Your task to perform on an android device: turn off location Image 0: 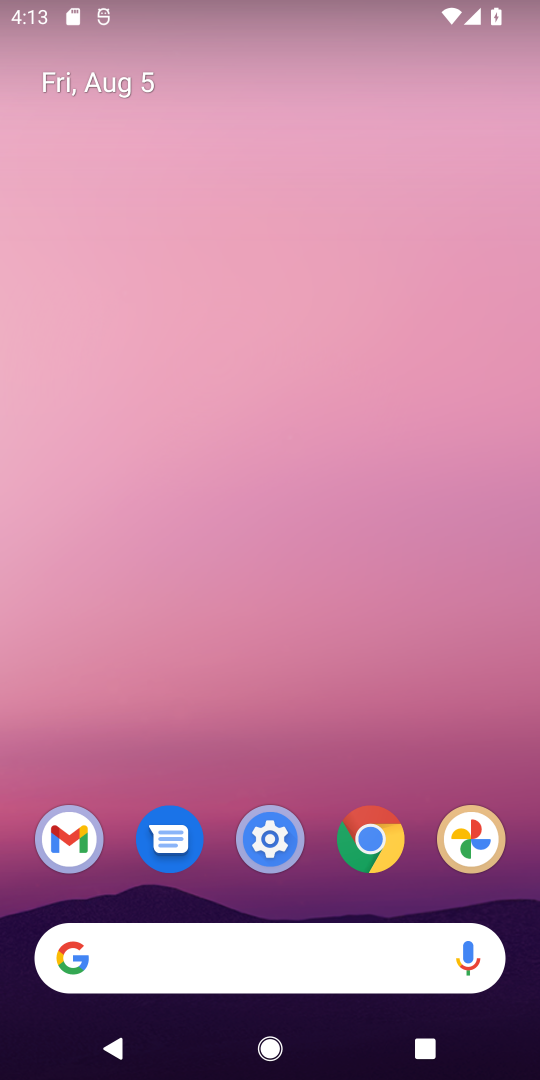
Step 0: click (265, 816)
Your task to perform on an android device: turn off location Image 1: 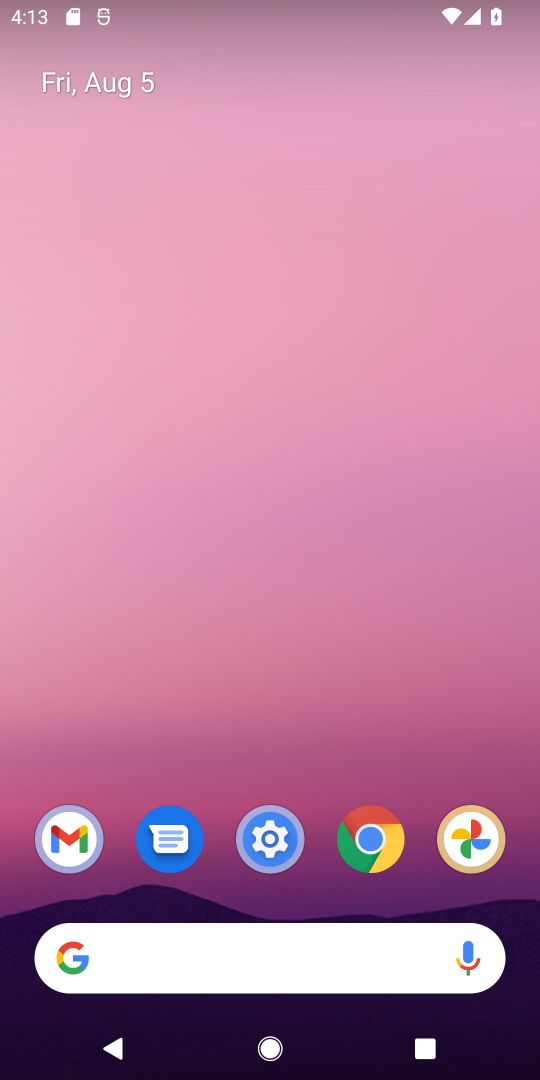
Step 1: click (275, 836)
Your task to perform on an android device: turn off location Image 2: 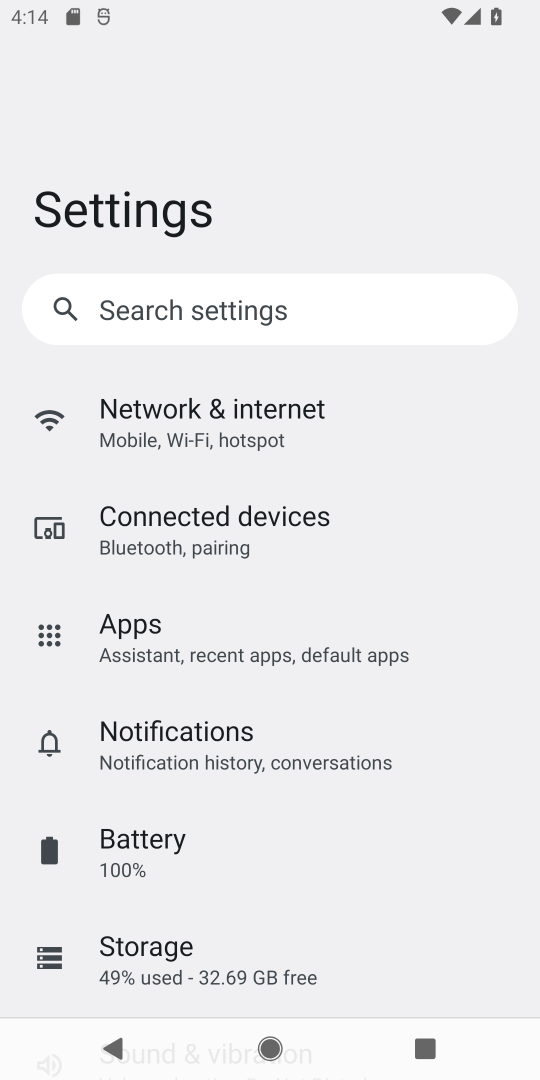
Step 2: drag from (286, 885) to (285, 320)
Your task to perform on an android device: turn off location Image 3: 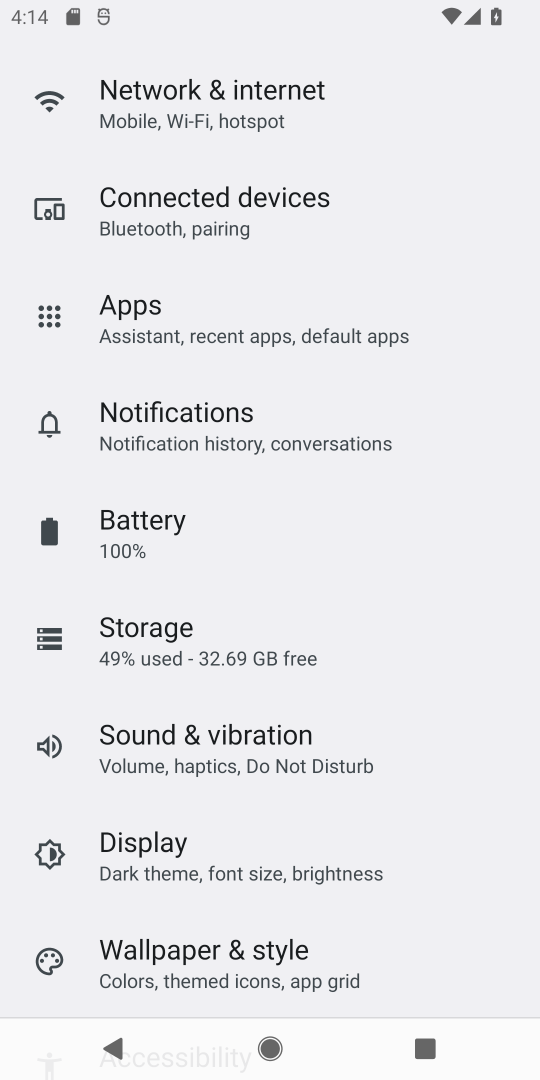
Step 3: drag from (235, 911) to (260, 417)
Your task to perform on an android device: turn off location Image 4: 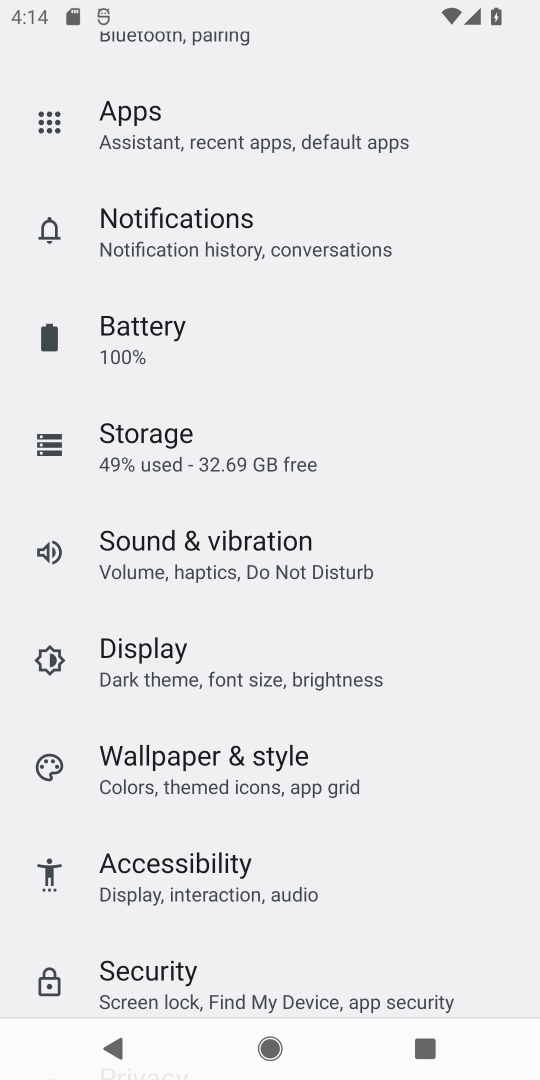
Step 4: drag from (250, 814) to (315, 279)
Your task to perform on an android device: turn off location Image 5: 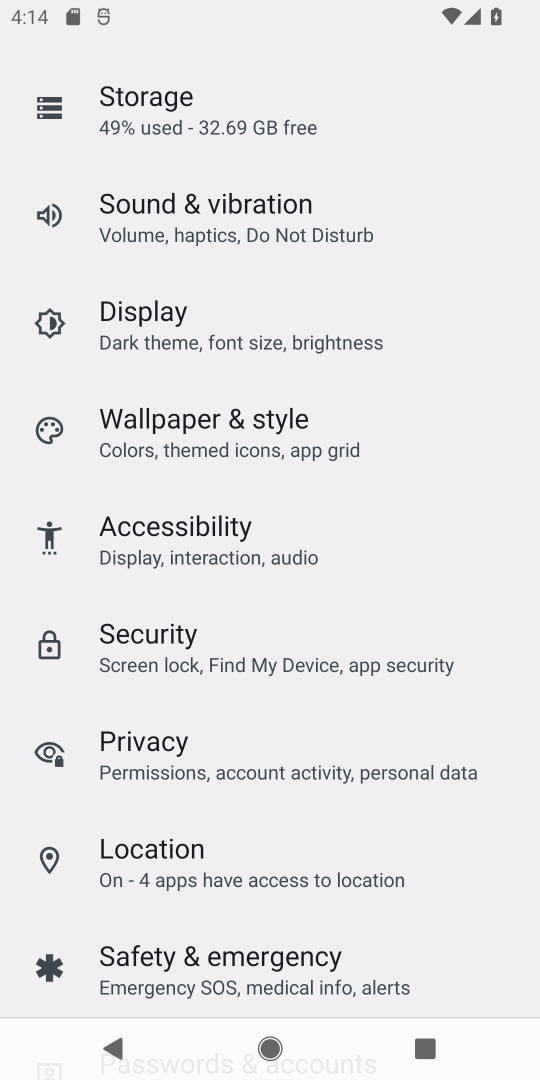
Step 5: click (207, 849)
Your task to perform on an android device: turn off location Image 6: 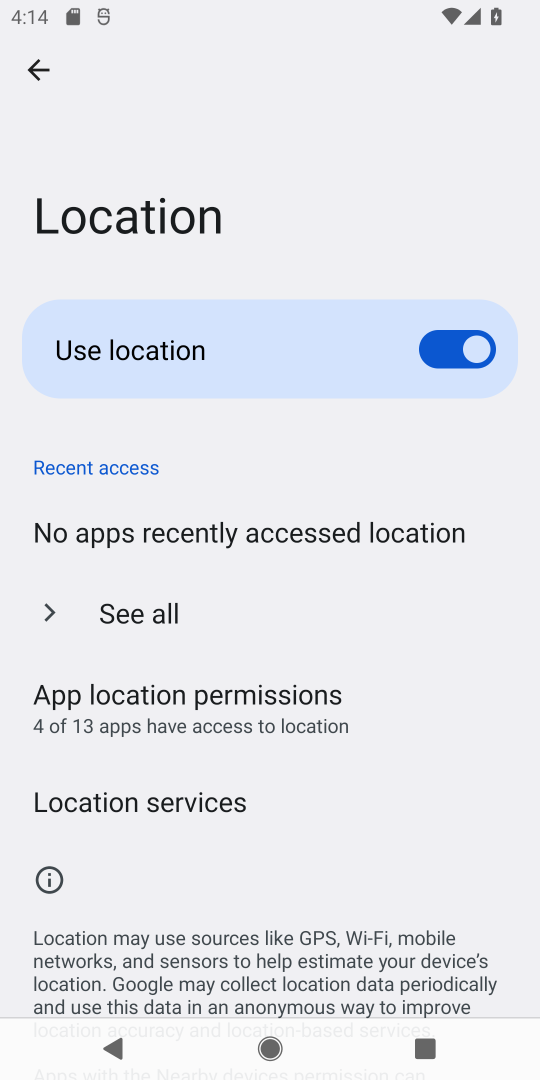
Step 6: click (461, 351)
Your task to perform on an android device: turn off location Image 7: 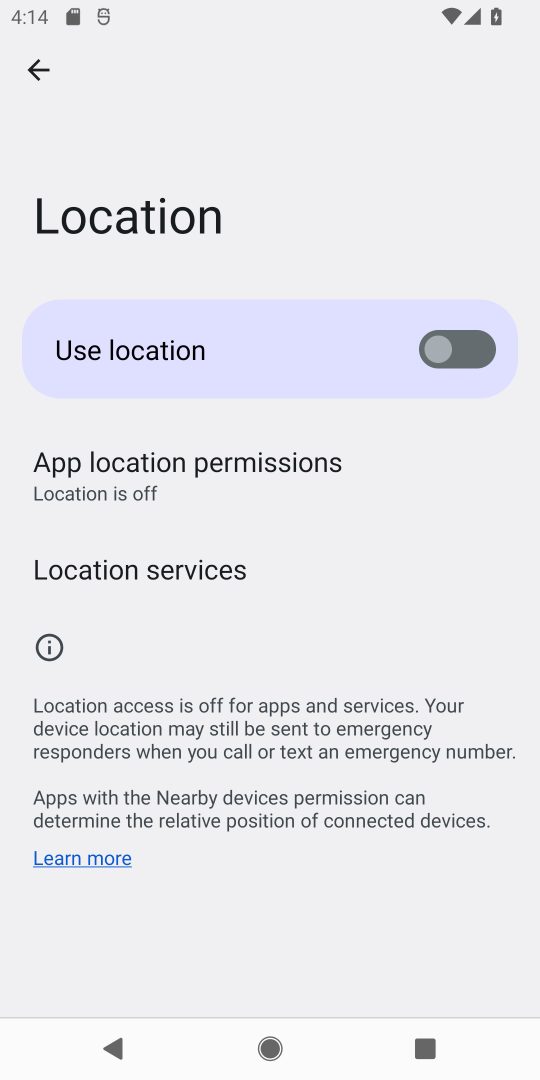
Step 7: task complete